Your task to perform on an android device: turn on notifications settings in the gmail app Image 0: 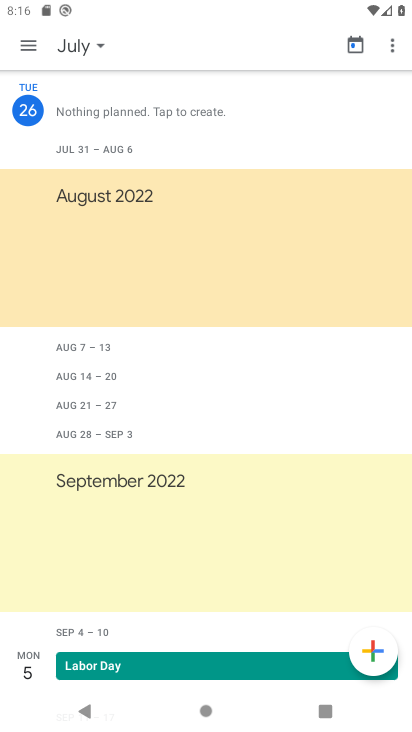
Step 0: press home button
Your task to perform on an android device: turn on notifications settings in the gmail app Image 1: 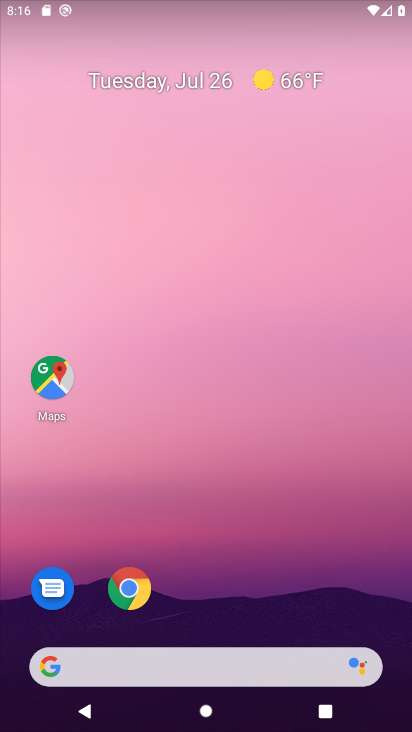
Step 1: drag from (235, 728) to (223, 194)
Your task to perform on an android device: turn on notifications settings in the gmail app Image 2: 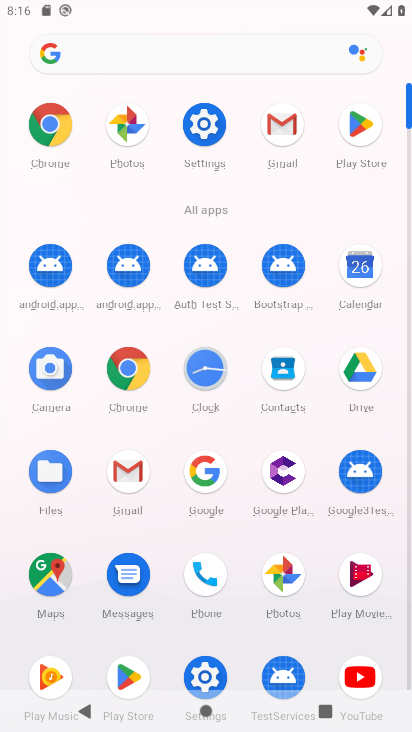
Step 2: click (134, 471)
Your task to perform on an android device: turn on notifications settings in the gmail app Image 3: 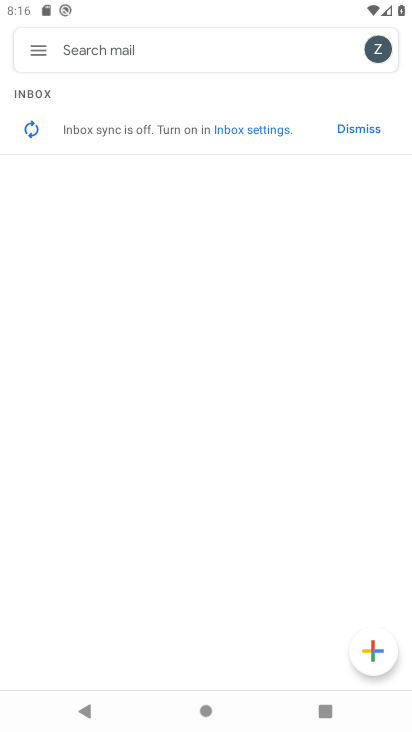
Step 3: click (37, 52)
Your task to perform on an android device: turn on notifications settings in the gmail app Image 4: 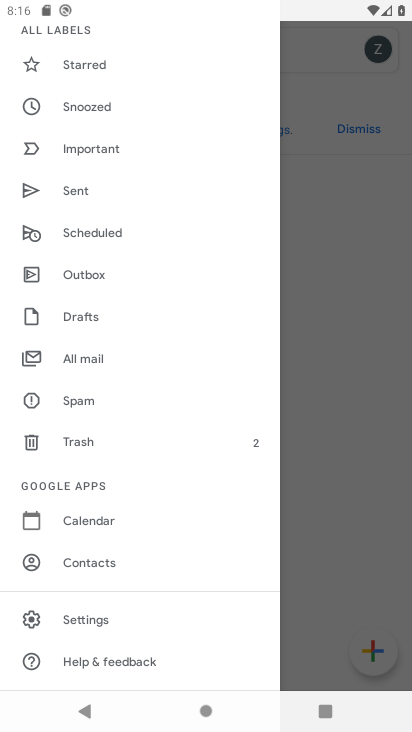
Step 4: click (77, 616)
Your task to perform on an android device: turn on notifications settings in the gmail app Image 5: 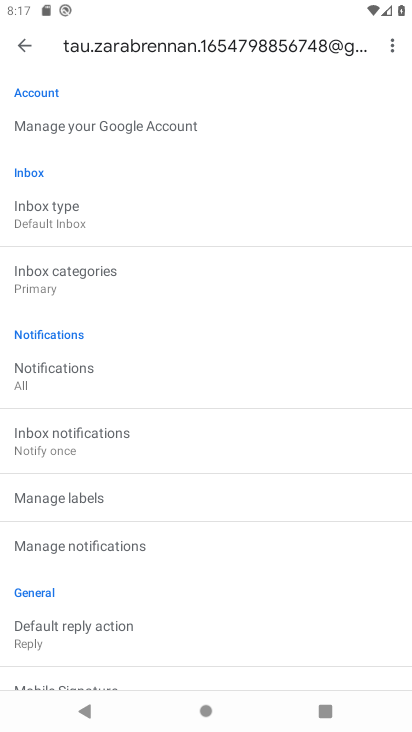
Step 5: click (40, 368)
Your task to perform on an android device: turn on notifications settings in the gmail app Image 6: 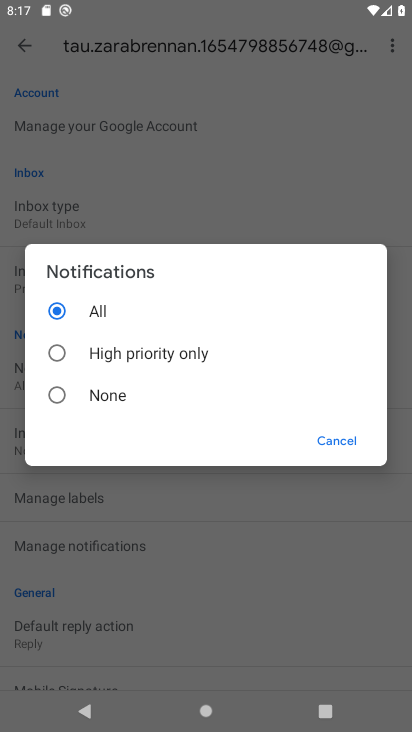
Step 6: task complete